Your task to perform on an android device: turn smart compose on in the gmail app Image 0: 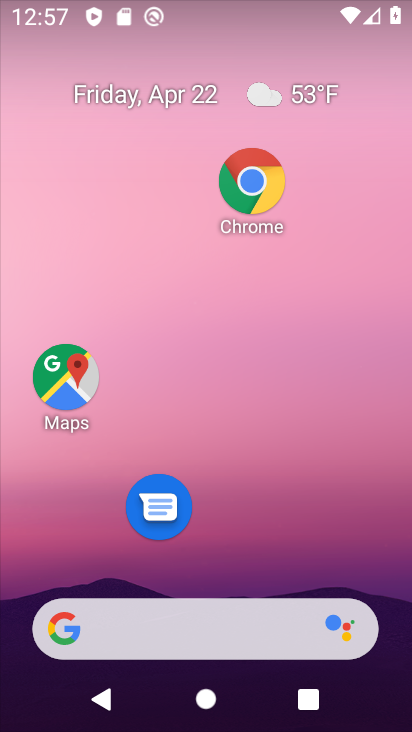
Step 0: drag from (227, 560) to (188, 140)
Your task to perform on an android device: turn smart compose on in the gmail app Image 1: 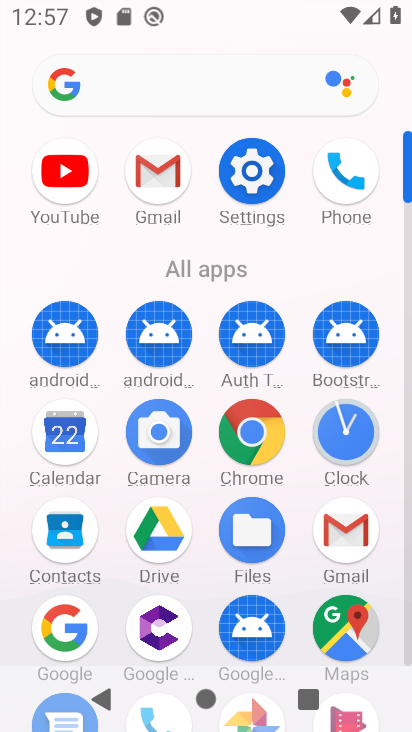
Step 1: click (332, 523)
Your task to perform on an android device: turn smart compose on in the gmail app Image 2: 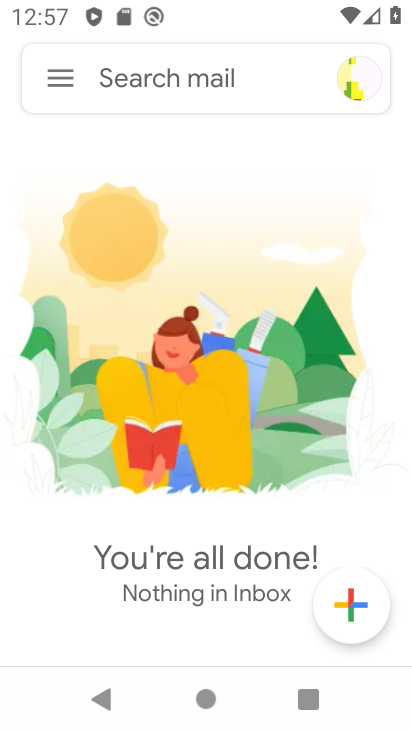
Step 2: click (60, 65)
Your task to perform on an android device: turn smart compose on in the gmail app Image 3: 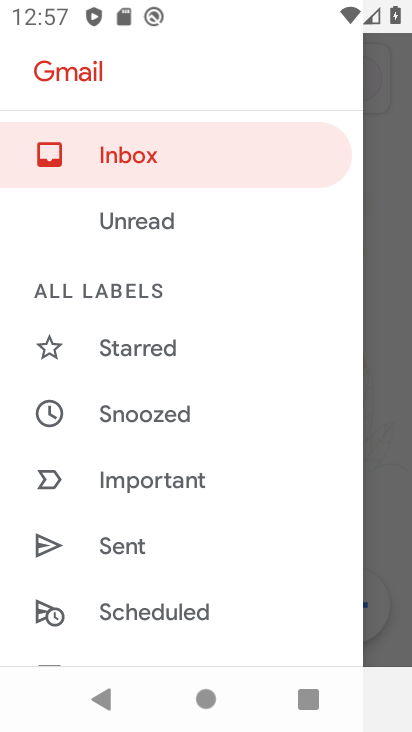
Step 3: drag from (100, 534) to (159, 53)
Your task to perform on an android device: turn smart compose on in the gmail app Image 4: 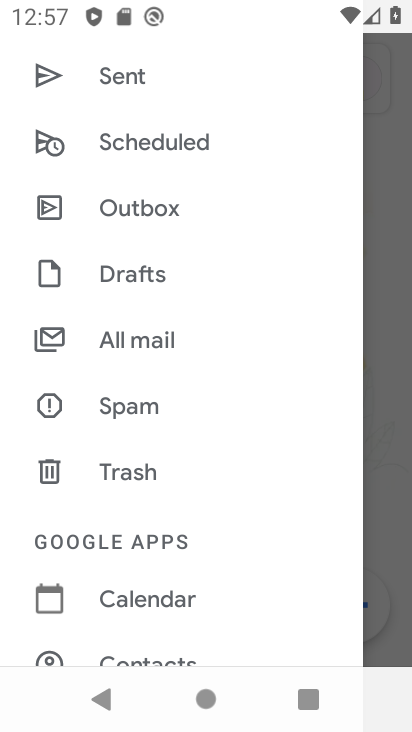
Step 4: drag from (176, 551) to (193, 160)
Your task to perform on an android device: turn smart compose on in the gmail app Image 5: 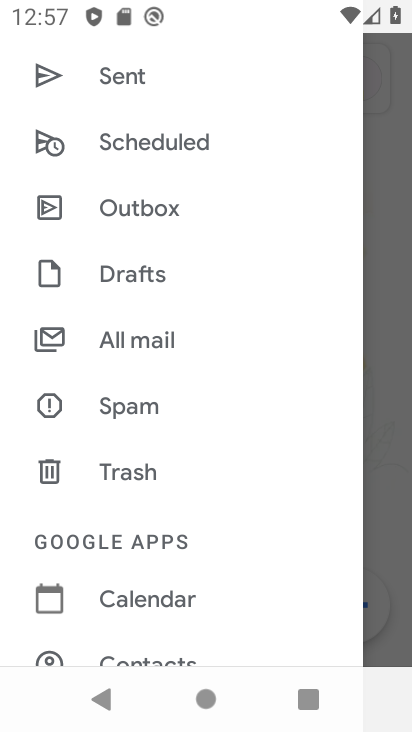
Step 5: drag from (192, 504) to (210, 133)
Your task to perform on an android device: turn smart compose on in the gmail app Image 6: 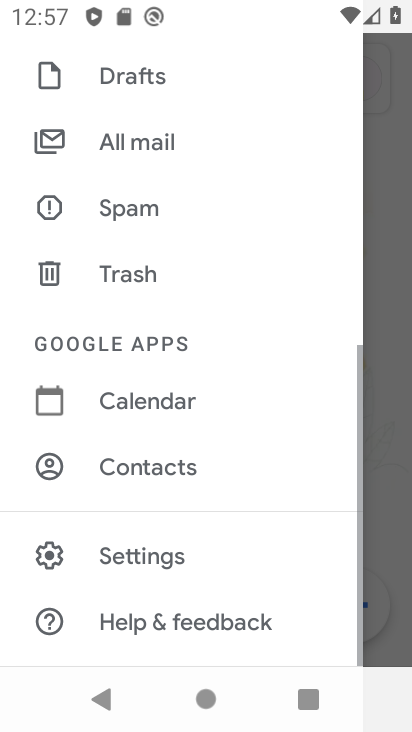
Step 6: click (185, 566)
Your task to perform on an android device: turn smart compose on in the gmail app Image 7: 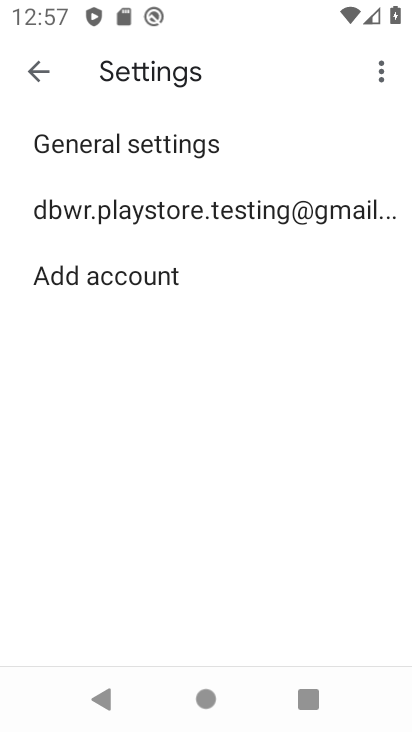
Step 7: click (218, 227)
Your task to perform on an android device: turn smart compose on in the gmail app Image 8: 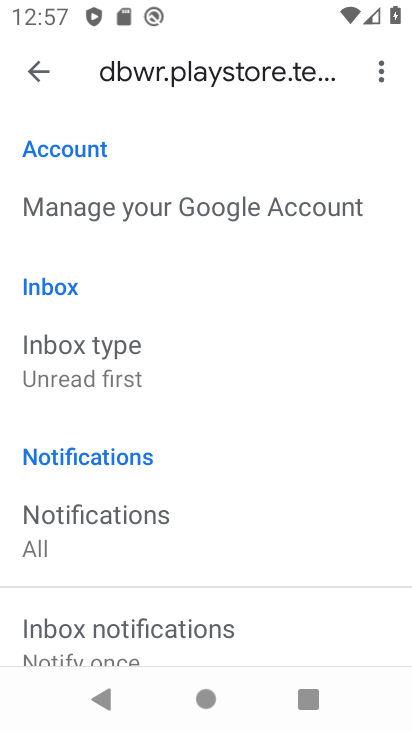
Step 8: task complete